Your task to perform on an android device: Go to Maps Image 0: 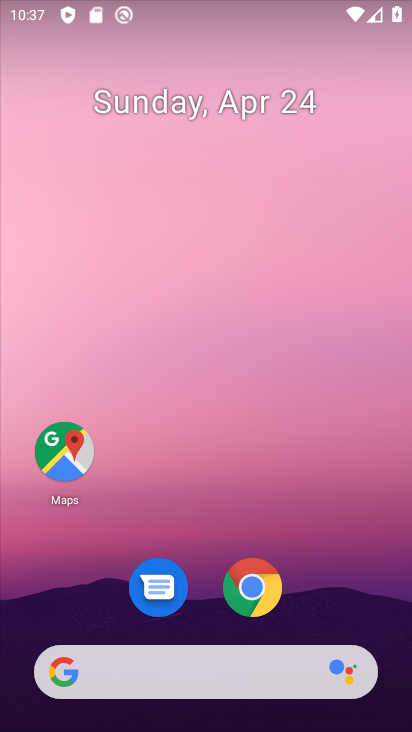
Step 0: drag from (354, 581) to (329, 73)
Your task to perform on an android device: Go to Maps Image 1: 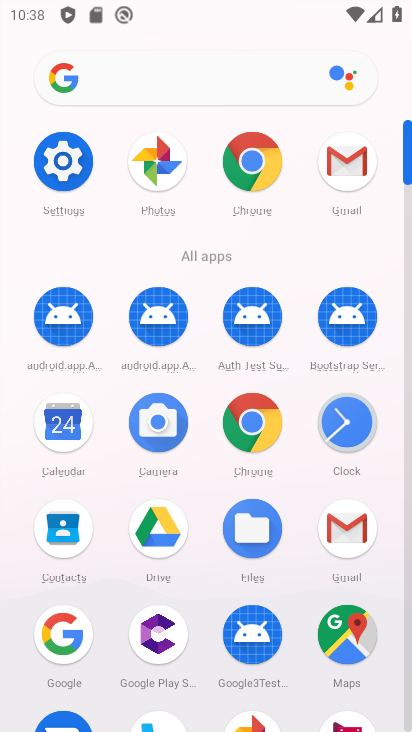
Step 1: click (328, 633)
Your task to perform on an android device: Go to Maps Image 2: 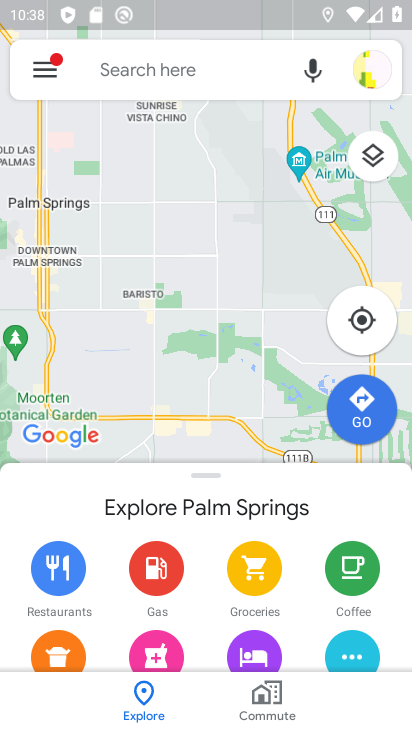
Step 2: task complete